Your task to perform on an android device: Open the Play Movies app and select the watchlist tab. Image 0: 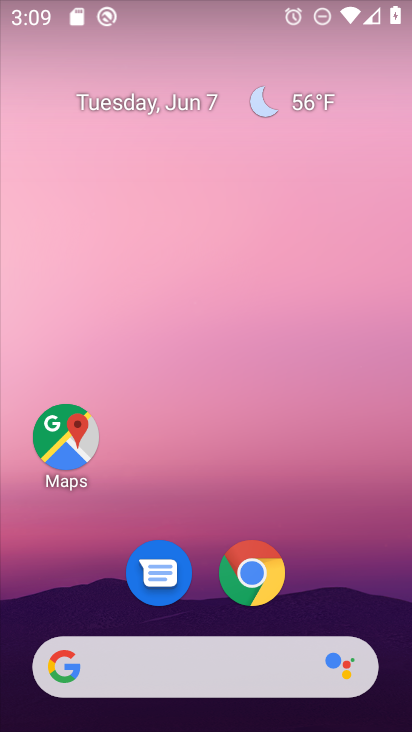
Step 0: drag from (316, 624) to (392, 59)
Your task to perform on an android device: Open the Play Movies app and select the watchlist tab. Image 1: 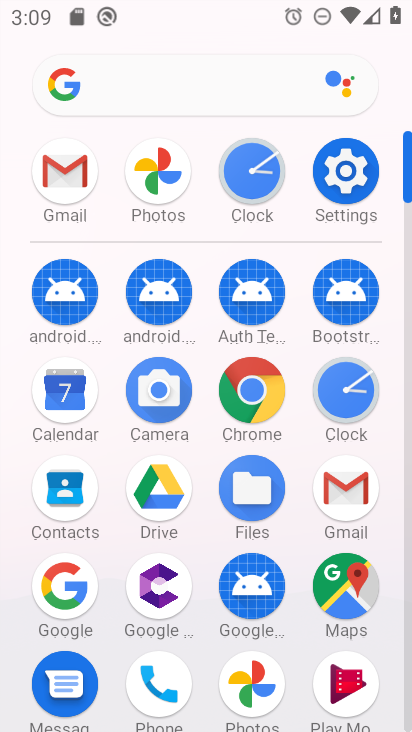
Step 1: click (342, 670)
Your task to perform on an android device: Open the Play Movies app and select the watchlist tab. Image 2: 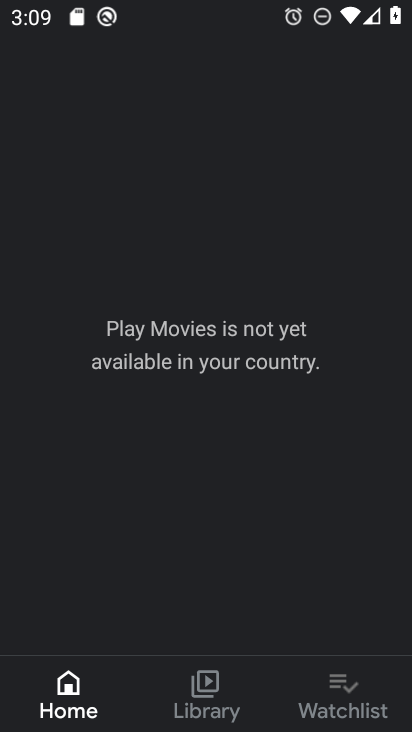
Step 2: click (367, 698)
Your task to perform on an android device: Open the Play Movies app and select the watchlist tab. Image 3: 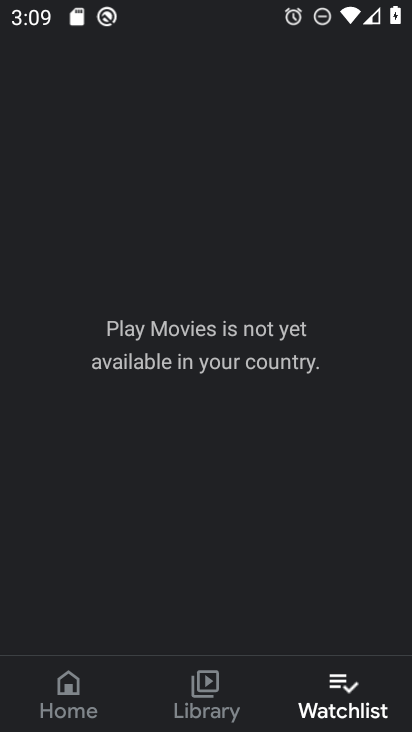
Step 3: task complete